Your task to perform on an android device: Open Android settings Image 0: 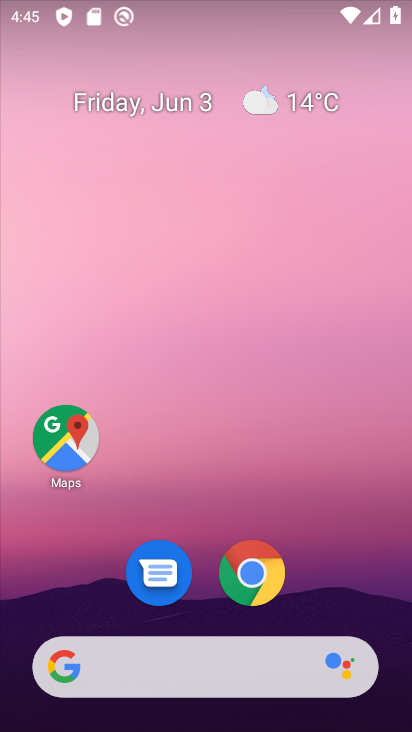
Step 0: click (265, 103)
Your task to perform on an android device: Open Android settings Image 1: 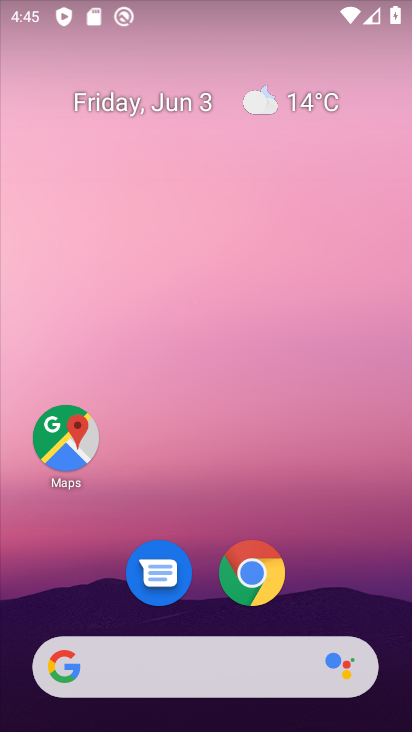
Step 1: drag from (361, 506) to (236, 8)
Your task to perform on an android device: Open Android settings Image 2: 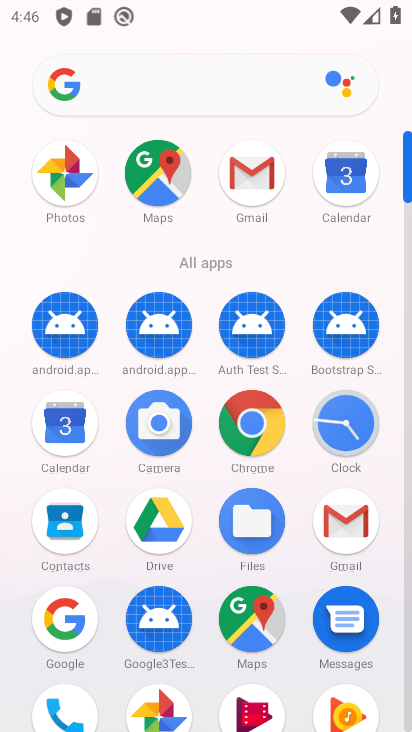
Step 2: drag from (304, 605) to (330, 144)
Your task to perform on an android device: Open Android settings Image 3: 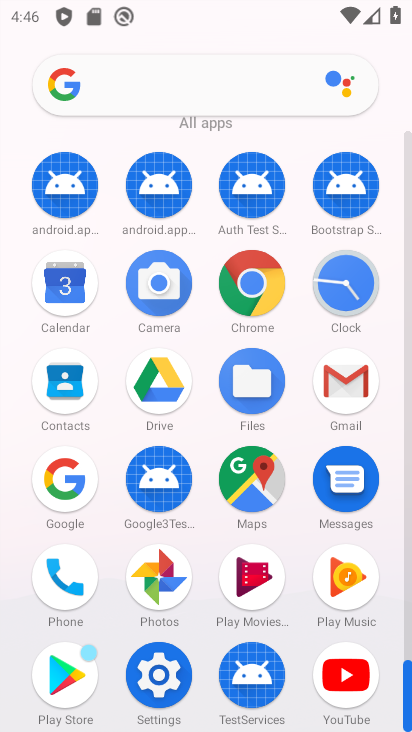
Step 3: click (159, 673)
Your task to perform on an android device: Open Android settings Image 4: 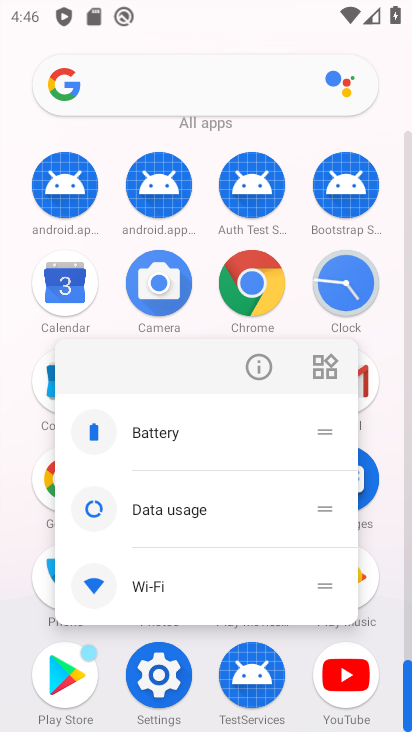
Step 4: click (162, 670)
Your task to perform on an android device: Open Android settings Image 5: 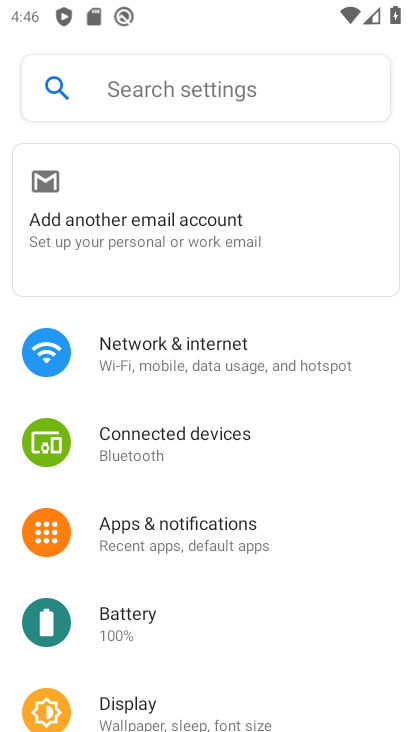
Step 5: task complete